Your task to perform on an android device: What's the weather like in Seoul? Image 0: 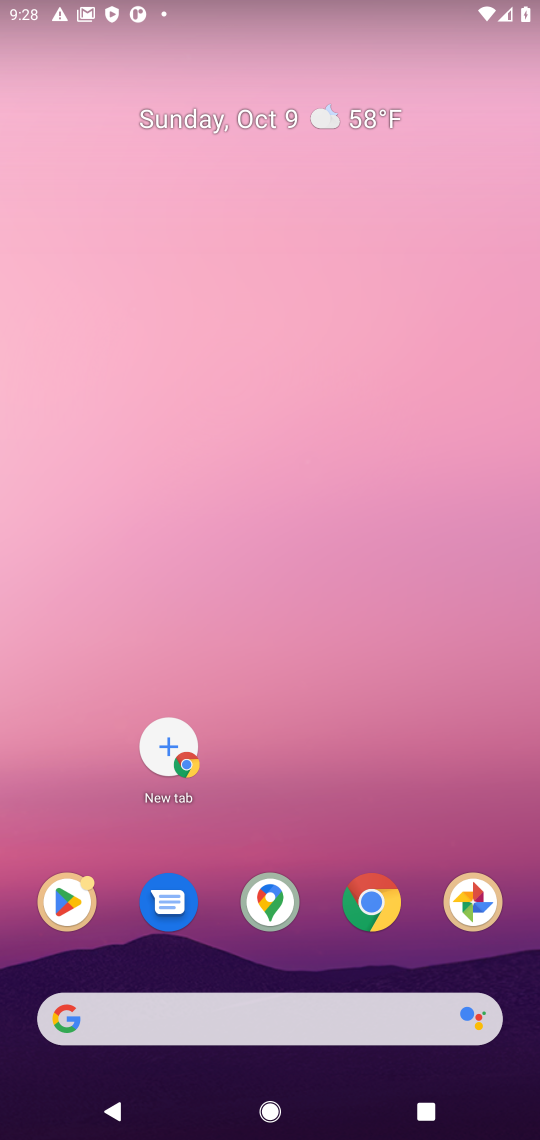
Step 0: click (369, 897)
Your task to perform on an android device: What's the weather like in Seoul? Image 1: 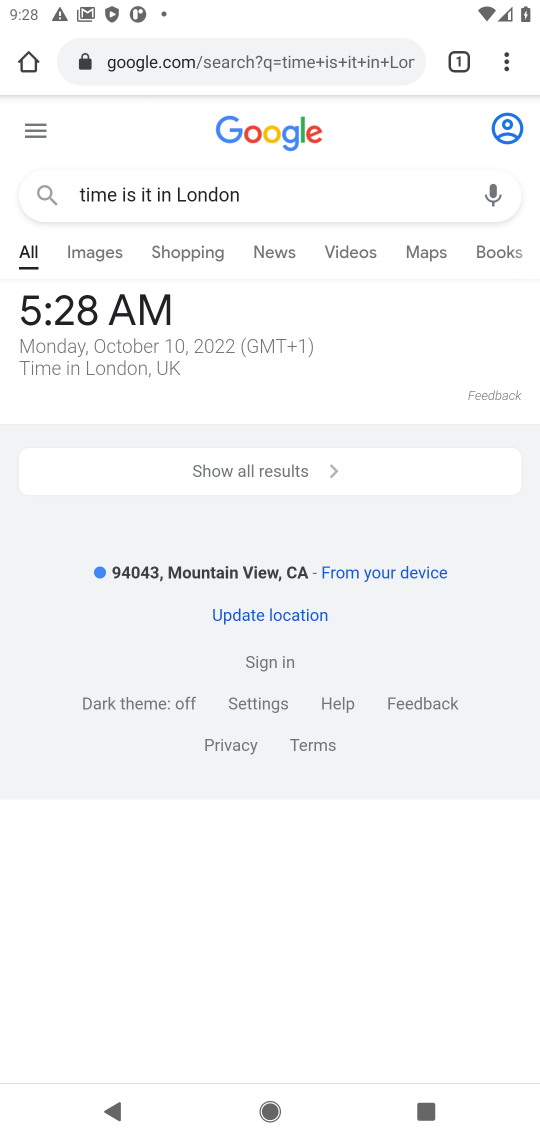
Step 1: click (325, 62)
Your task to perform on an android device: What's the weather like in Seoul? Image 2: 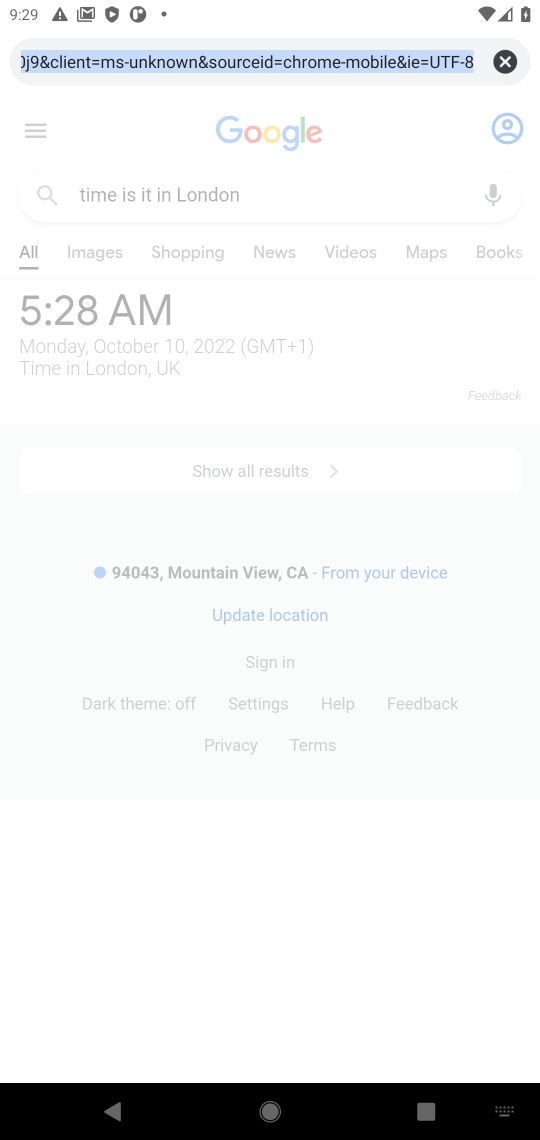
Step 2: type "weather like in Seoul"
Your task to perform on an android device: What's the weather like in Seoul? Image 3: 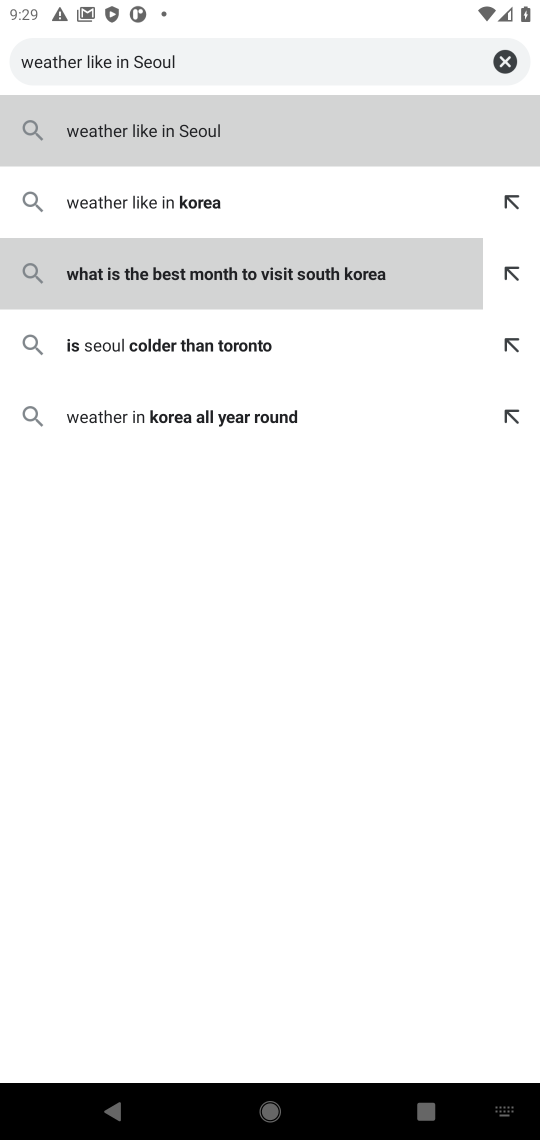
Step 3: click (176, 128)
Your task to perform on an android device: What's the weather like in Seoul? Image 4: 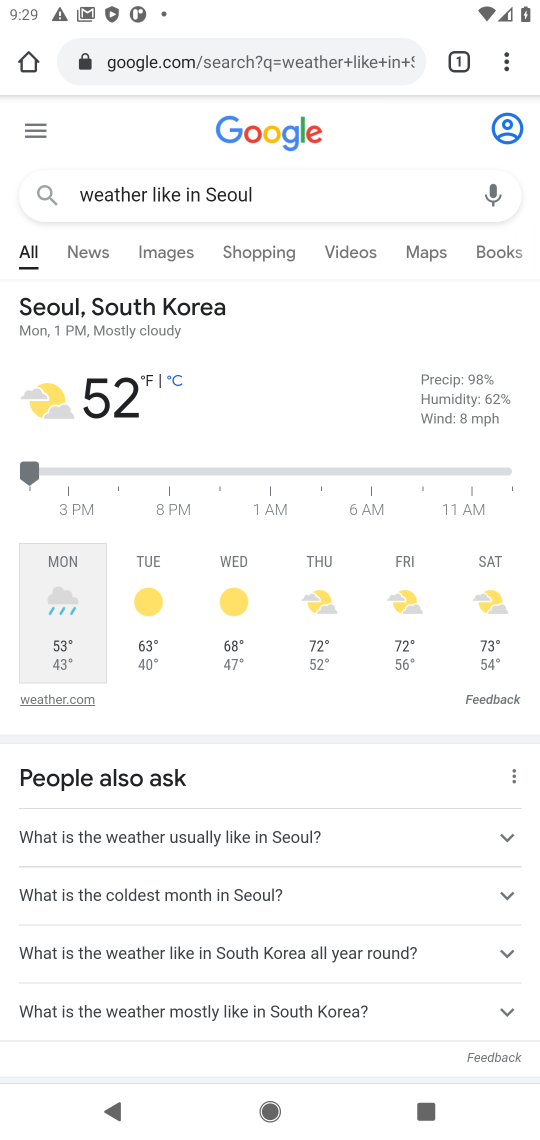
Step 4: task complete